Your task to perform on an android device: Go to notification settings Image 0: 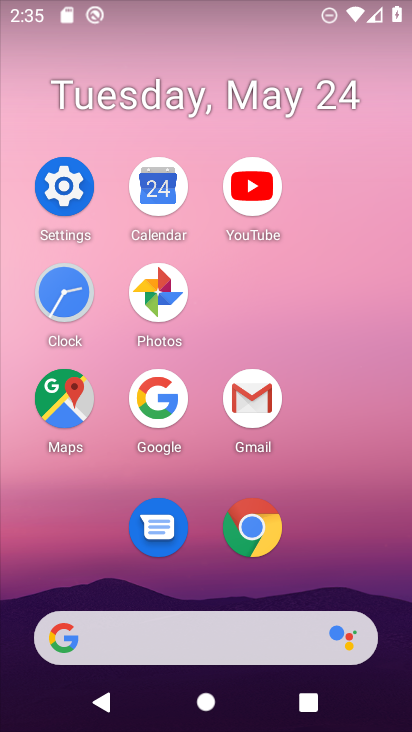
Step 0: click (63, 194)
Your task to perform on an android device: Go to notification settings Image 1: 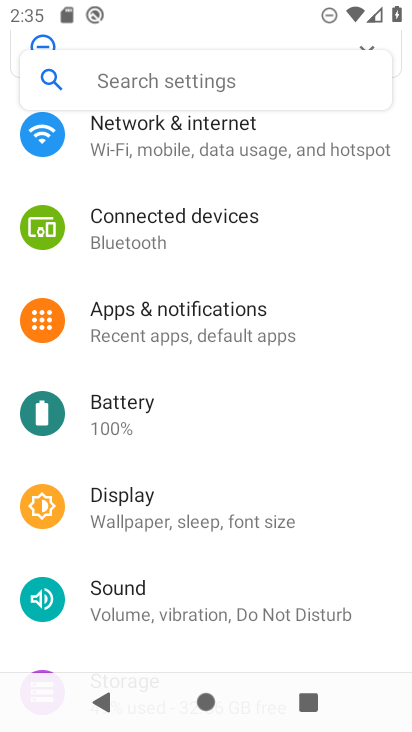
Step 1: click (239, 305)
Your task to perform on an android device: Go to notification settings Image 2: 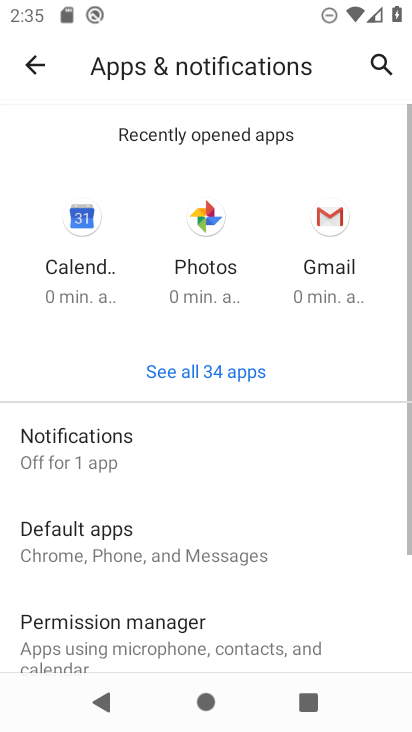
Step 2: task complete